Your task to perform on an android device: all mails in gmail Image 0: 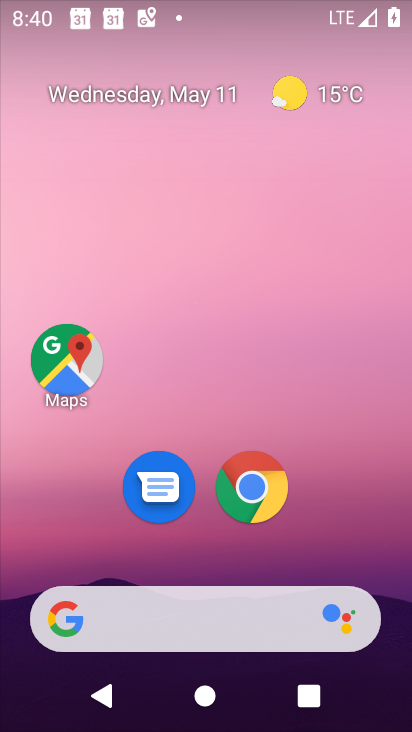
Step 0: drag from (291, 645) to (220, 222)
Your task to perform on an android device: all mails in gmail Image 1: 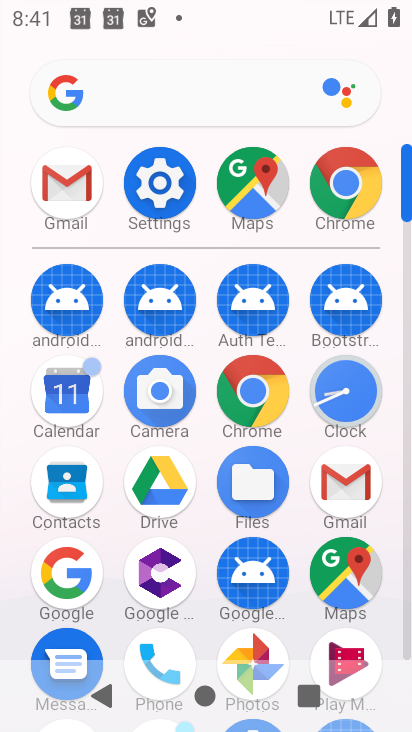
Step 1: click (80, 177)
Your task to perform on an android device: all mails in gmail Image 2: 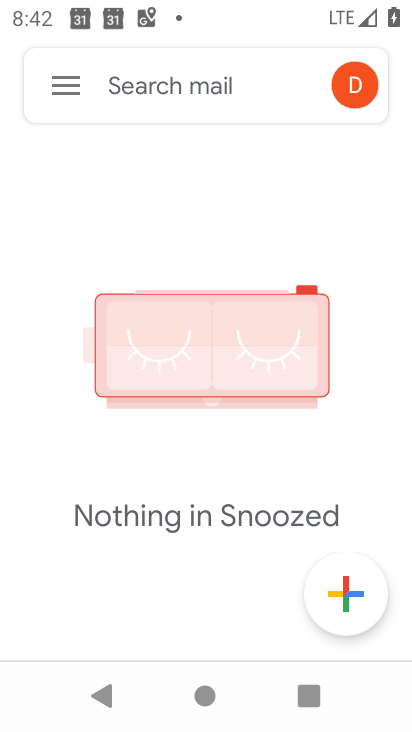
Step 2: click (67, 89)
Your task to perform on an android device: all mails in gmail Image 3: 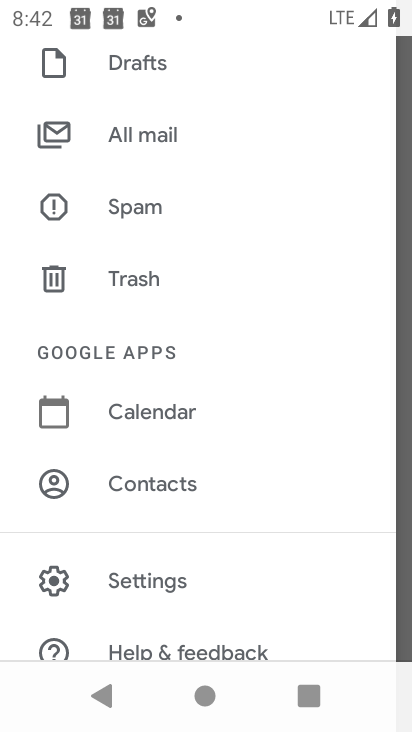
Step 3: click (165, 147)
Your task to perform on an android device: all mails in gmail Image 4: 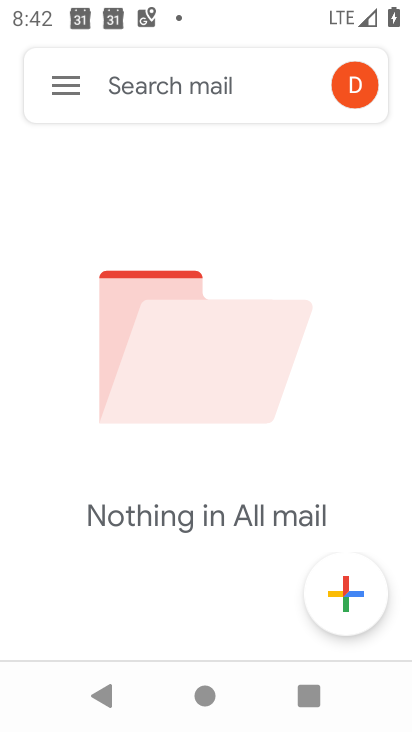
Step 4: task complete